Your task to perform on an android device: Go to notification settings Image 0: 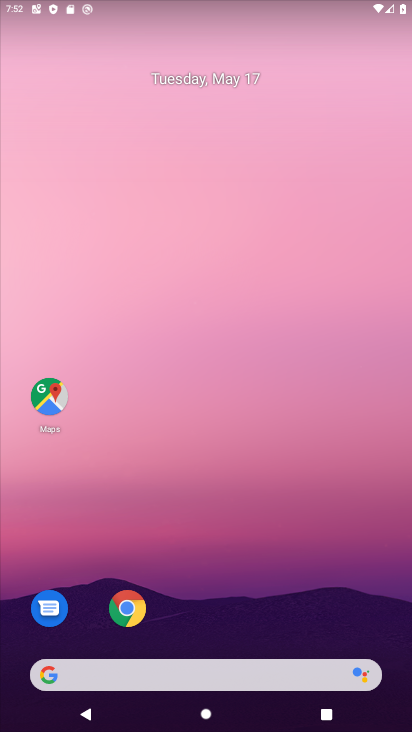
Step 0: drag from (257, 640) to (323, 82)
Your task to perform on an android device: Go to notification settings Image 1: 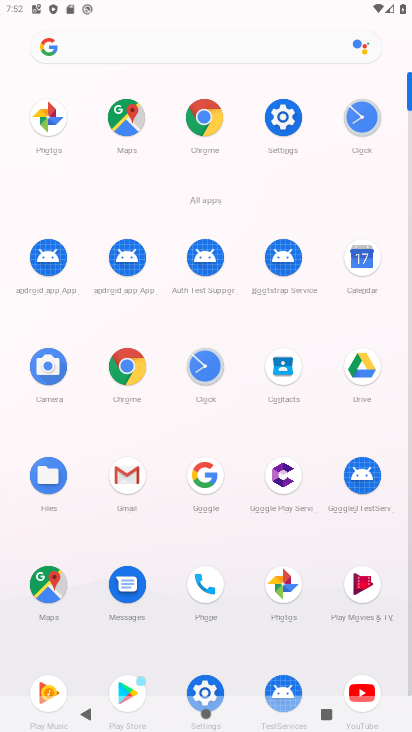
Step 1: click (282, 117)
Your task to perform on an android device: Go to notification settings Image 2: 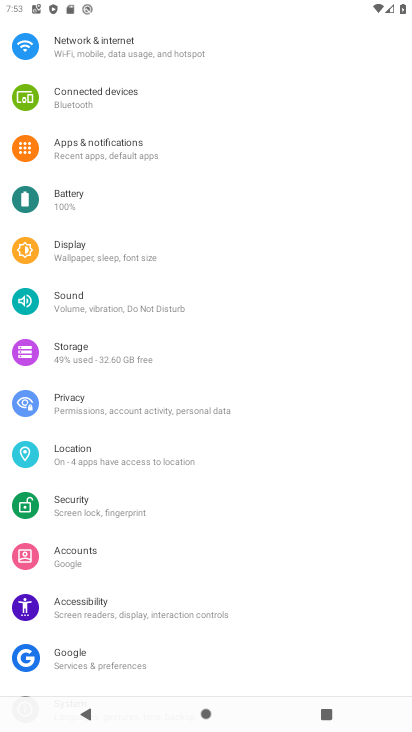
Step 2: click (132, 142)
Your task to perform on an android device: Go to notification settings Image 3: 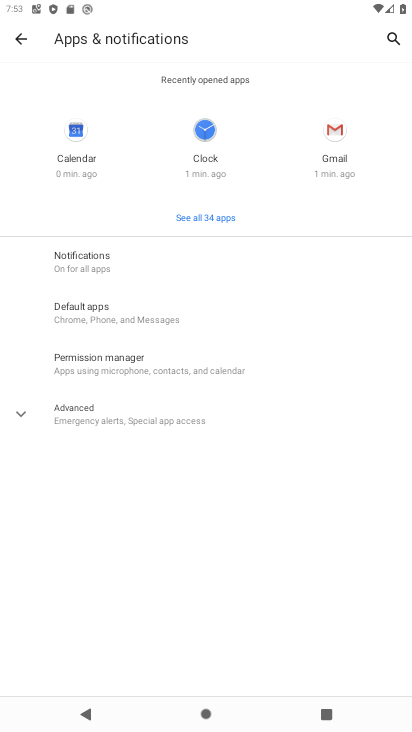
Step 3: task complete